Your task to perform on an android device: Open location settings Image 0: 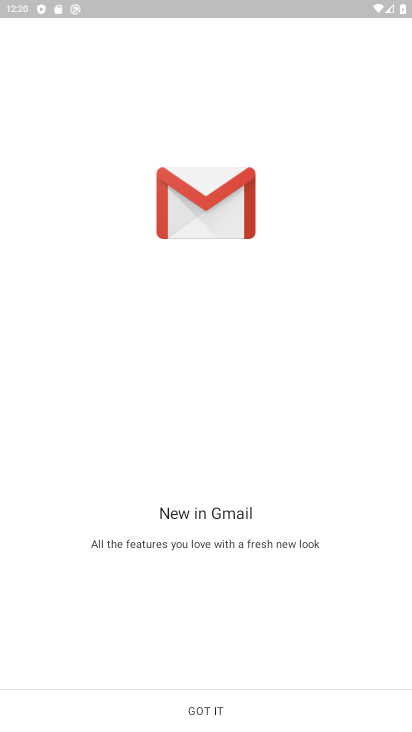
Step 0: press home button
Your task to perform on an android device: Open location settings Image 1: 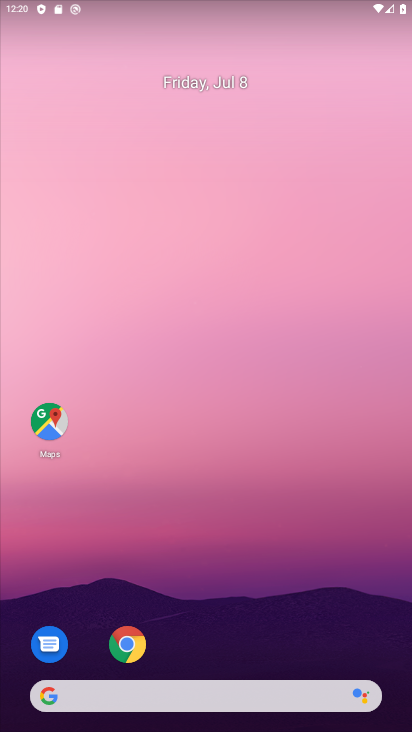
Step 1: drag from (192, 687) to (189, 316)
Your task to perform on an android device: Open location settings Image 2: 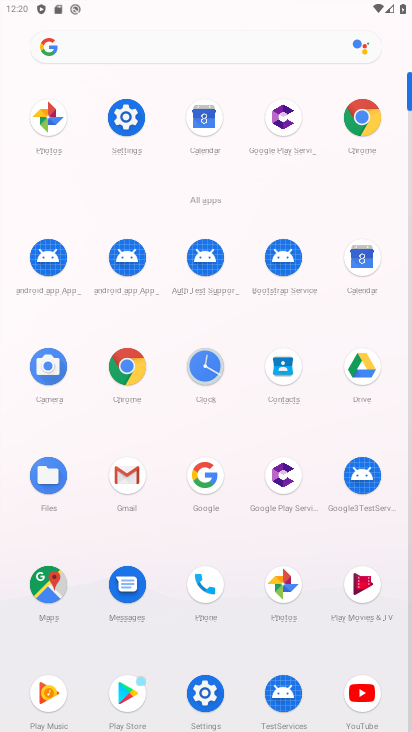
Step 2: click (123, 122)
Your task to perform on an android device: Open location settings Image 3: 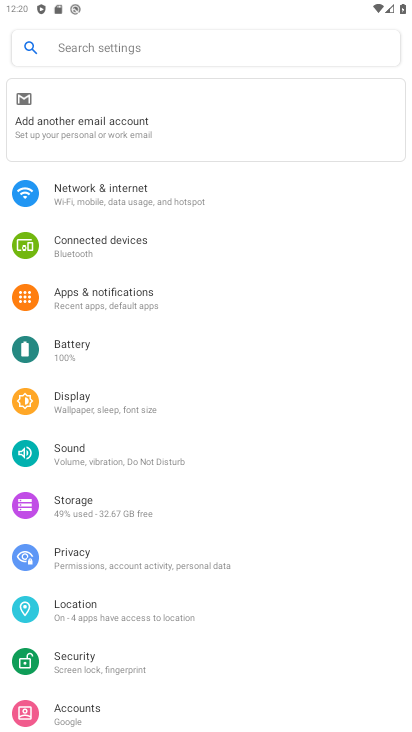
Step 3: click (95, 609)
Your task to perform on an android device: Open location settings Image 4: 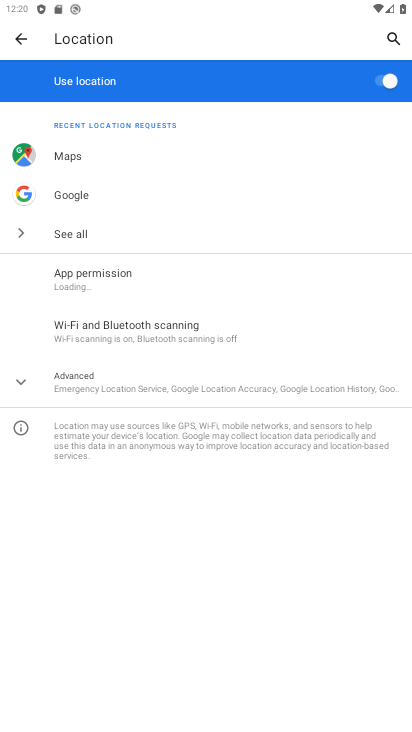
Step 4: click (81, 376)
Your task to perform on an android device: Open location settings Image 5: 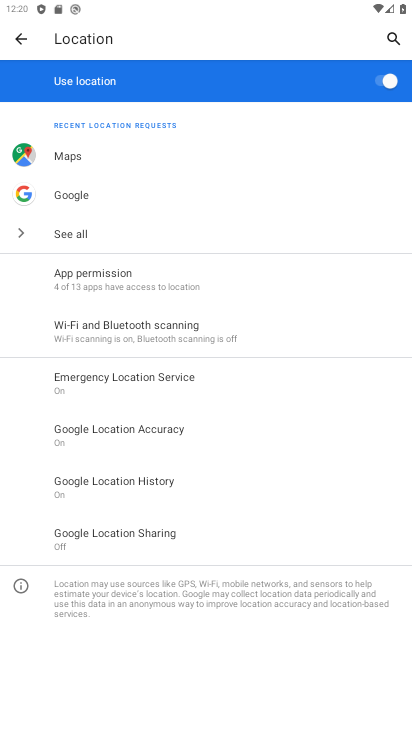
Step 5: task complete